Your task to perform on an android device: turn vacation reply on in the gmail app Image 0: 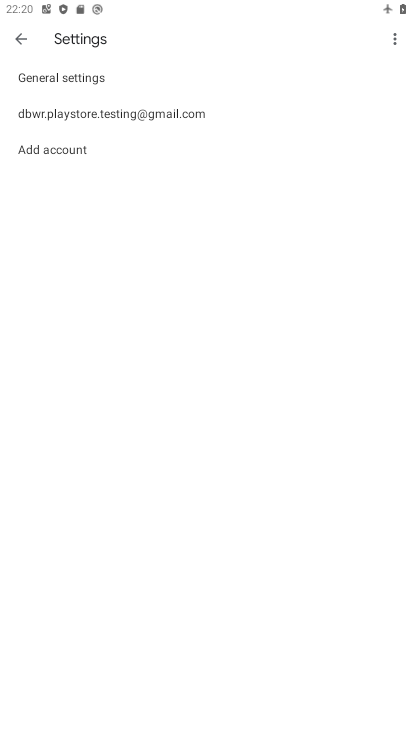
Step 0: press home button
Your task to perform on an android device: turn vacation reply on in the gmail app Image 1: 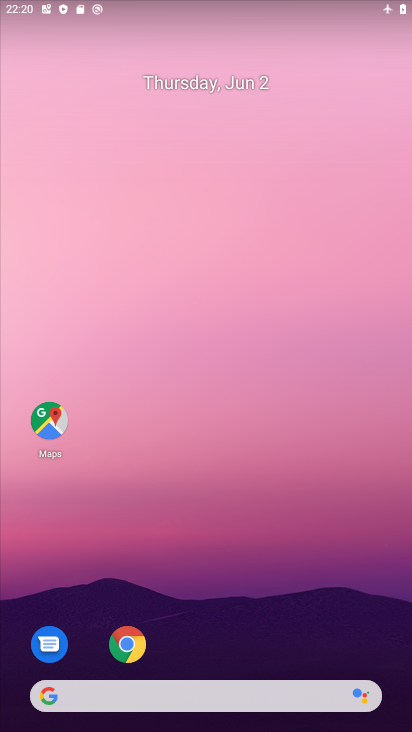
Step 1: drag from (173, 651) to (201, 248)
Your task to perform on an android device: turn vacation reply on in the gmail app Image 2: 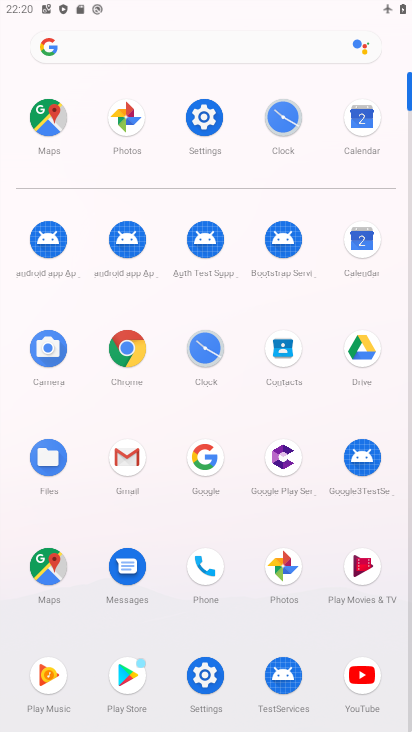
Step 2: click (128, 471)
Your task to perform on an android device: turn vacation reply on in the gmail app Image 3: 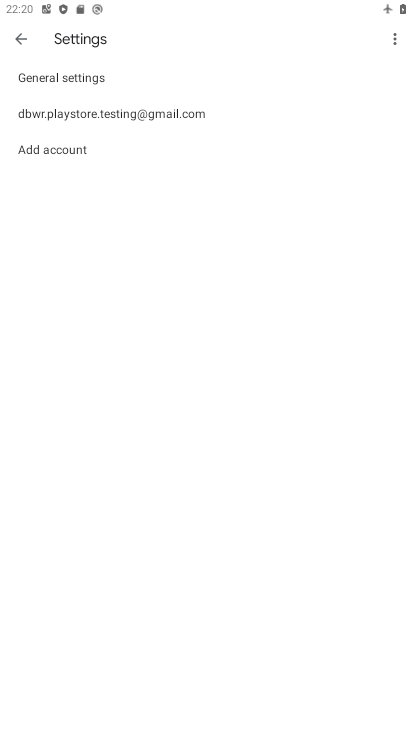
Step 3: click (180, 124)
Your task to perform on an android device: turn vacation reply on in the gmail app Image 4: 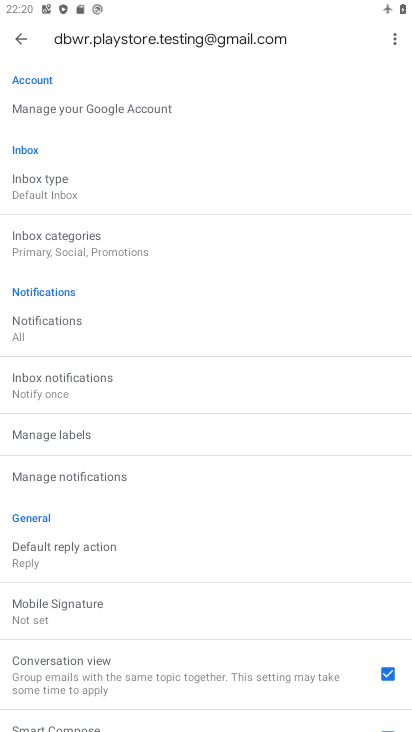
Step 4: drag from (132, 630) to (145, 273)
Your task to perform on an android device: turn vacation reply on in the gmail app Image 5: 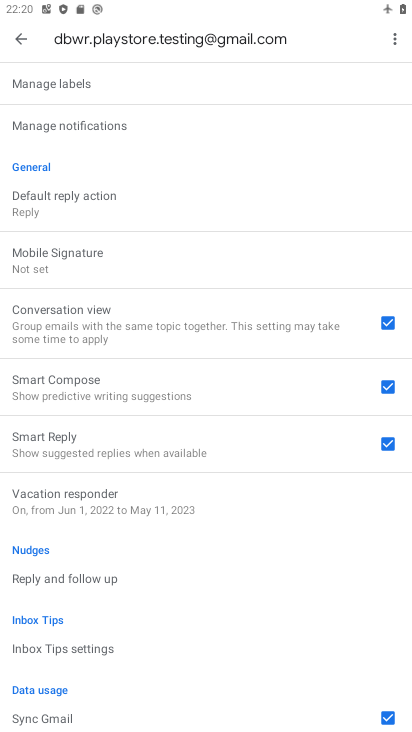
Step 5: drag from (115, 503) to (153, 396)
Your task to perform on an android device: turn vacation reply on in the gmail app Image 6: 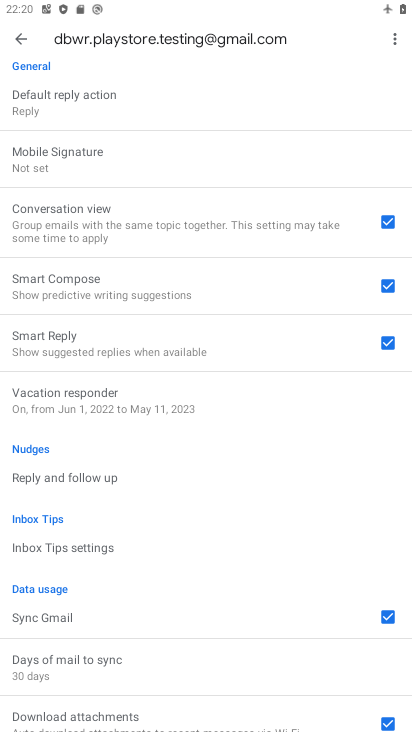
Step 6: click (149, 409)
Your task to perform on an android device: turn vacation reply on in the gmail app Image 7: 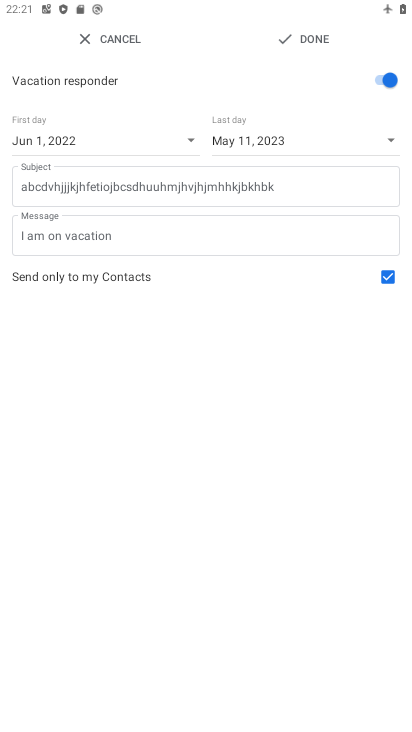
Step 7: task complete